Your task to perform on an android device: Open sound settings Image 0: 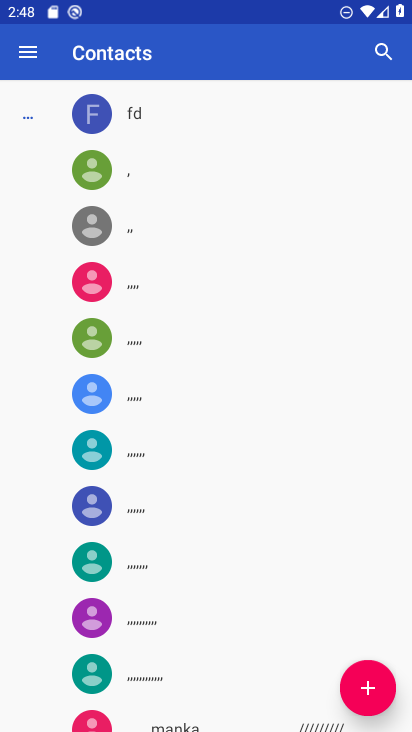
Step 0: press home button
Your task to perform on an android device: Open sound settings Image 1: 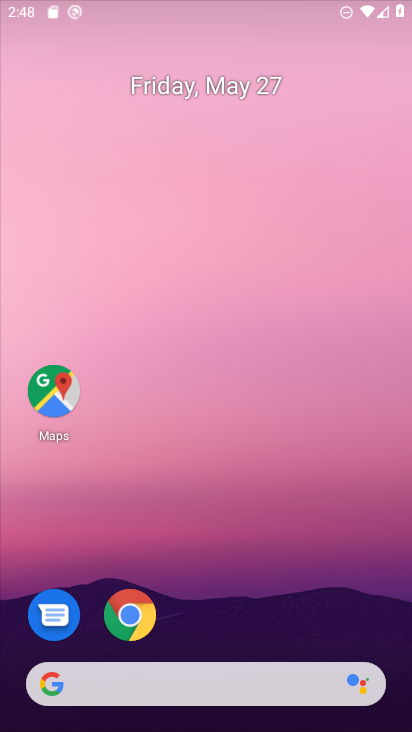
Step 1: drag from (185, 209) to (112, 32)
Your task to perform on an android device: Open sound settings Image 2: 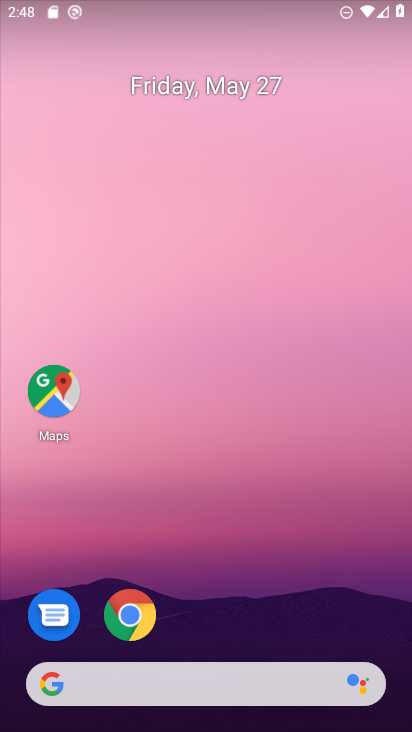
Step 2: drag from (268, 477) to (157, 16)
Your task to perform on an android device: Open sound settings Image 3: 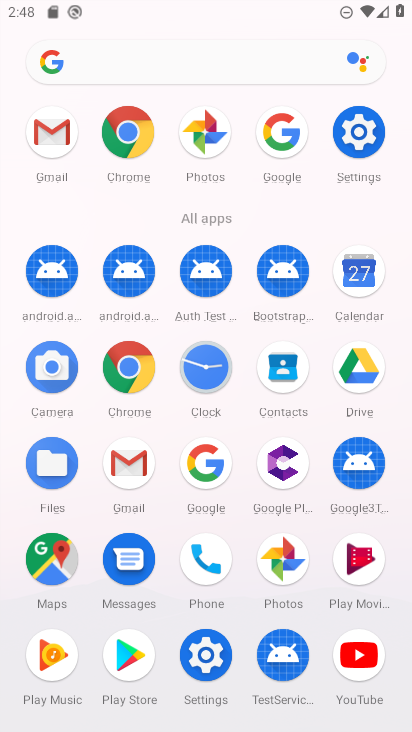
Step 3: click (360, 121)
Your task to perform on an android device: Open sound settings Image 4: 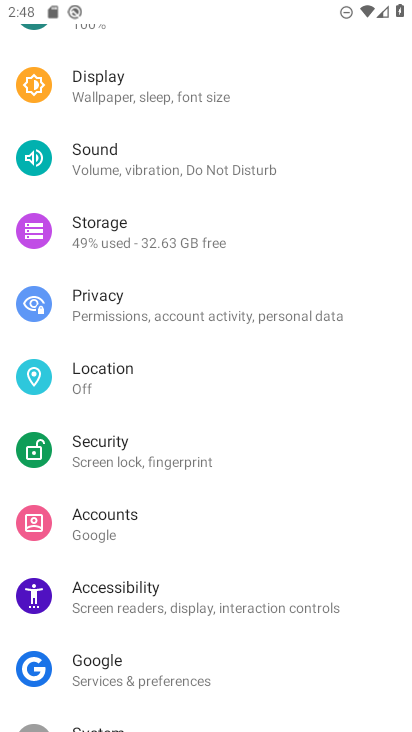
Step 4: click (152, 169)
Your task to perform on an android device: Open sound settings Image 5: 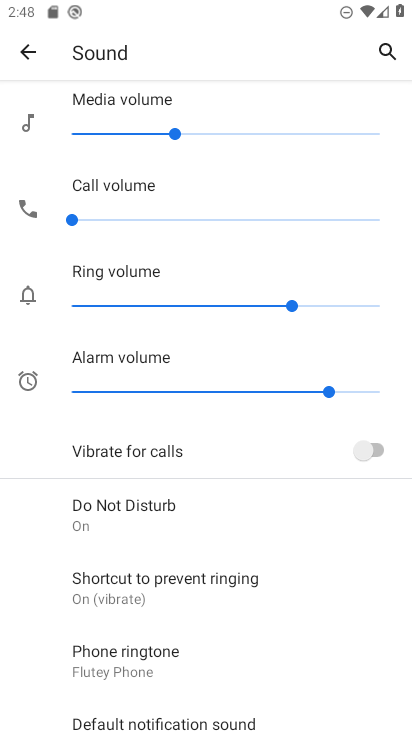
Step 5: task complete